Your task to perform on an android device: Go to Amazon Image 0: 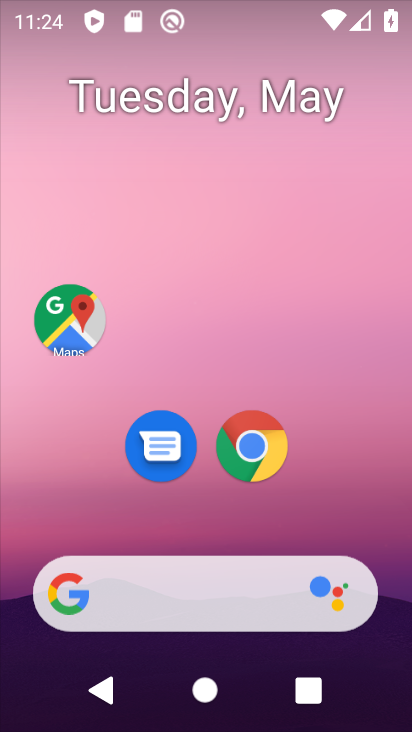
Step 0: click (272, 456)
Your task to perform on an android device: Go to Amazon Image 1: 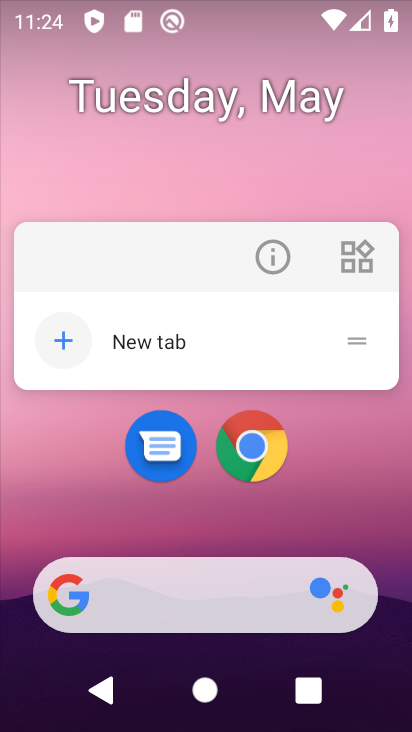
Step 1: click (272, 456)
Your task to perform on an android device: Go to Amazon Image 2: 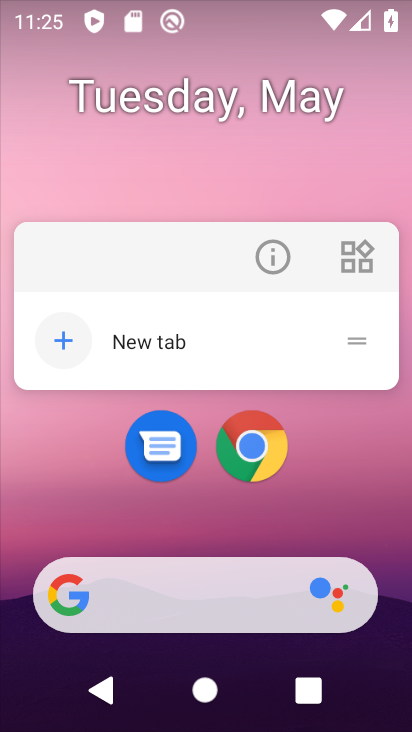
Step 2: click (258, 460)
Your task to perform on an android device: Go to Amazon Image 3: 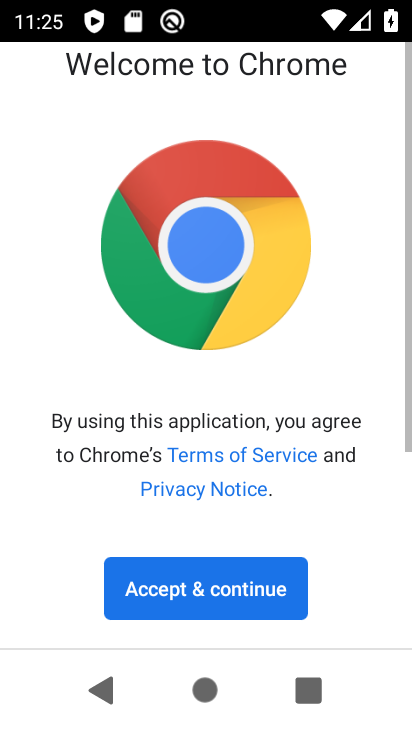
Step 3: click (199, 583)
Your task to perform on an android device: Go to Amazon Image 4: 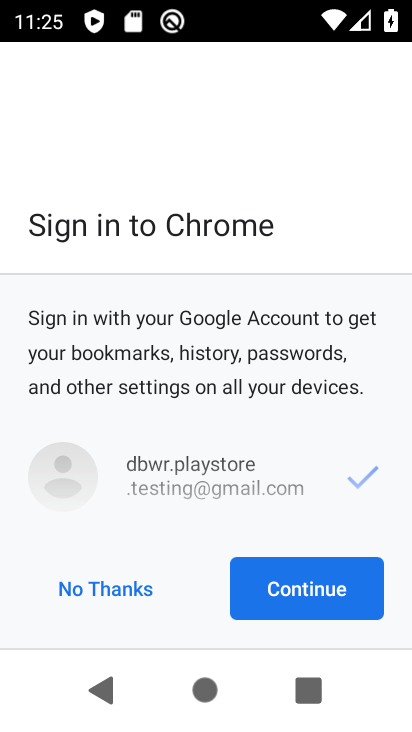
Step 4: click (322, 608)
Your task to perform on an android device: Go to Amazon Image 5: 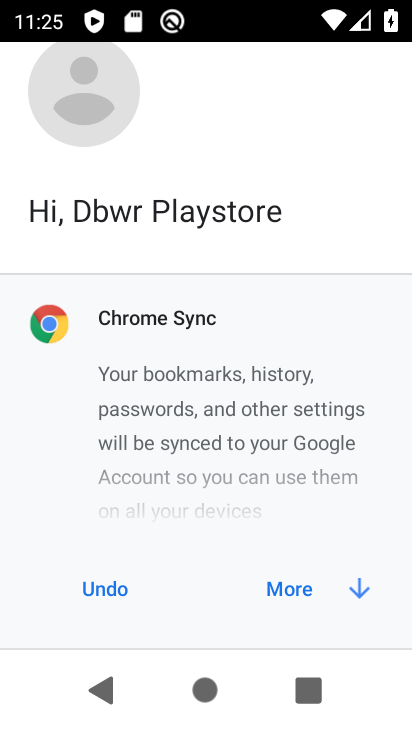
Step 5: click (320, 601)
Your task to perform on an android device: Go to Amazon Image 6: 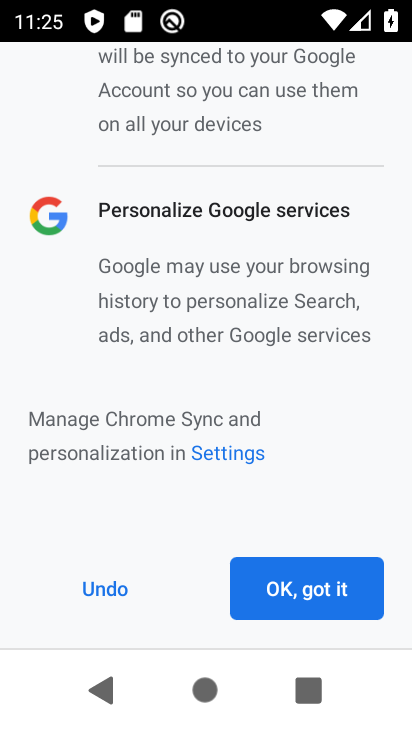
Step 6: click (386, 594)
Your task to perform on an android device: Go to Amazon Image 7: 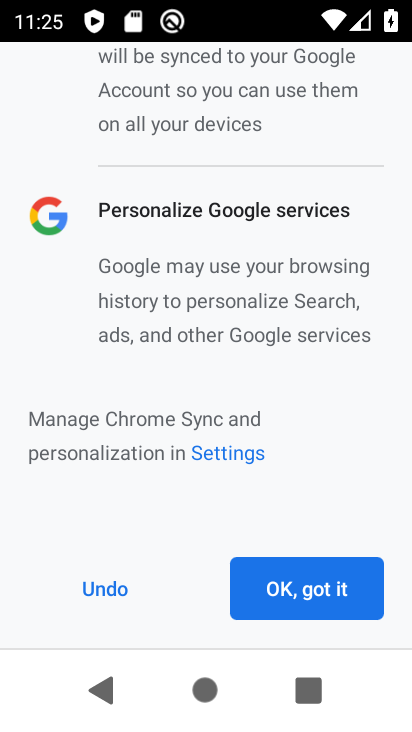
Step 7: click (345, 596)
Your task to perform on an android device: Go to Amazon Image 8: 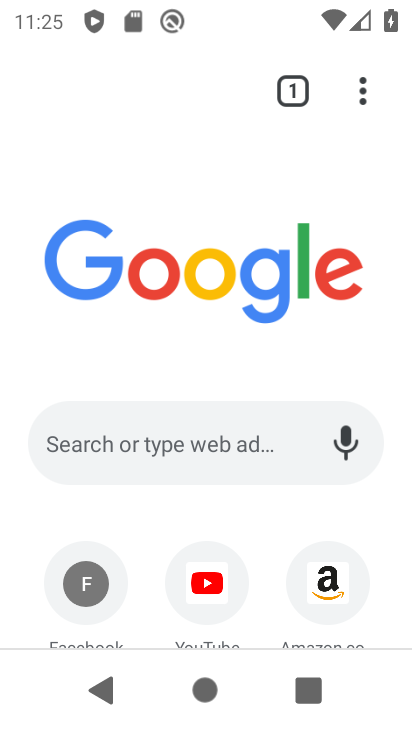
Step 8: click (337, 596)
Your task to perform on an android device: Go to Amazon Image 9: 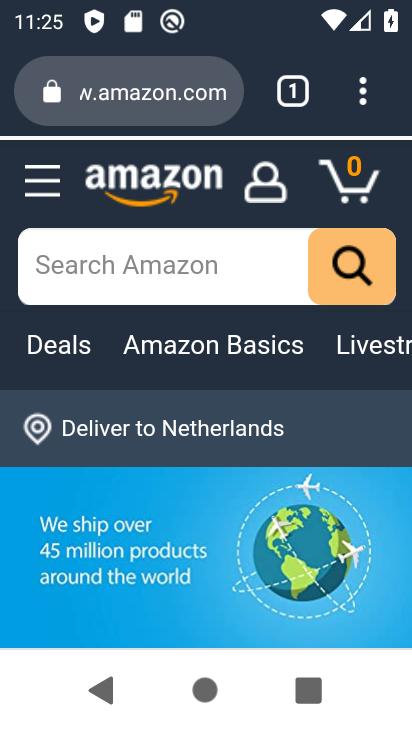
Step 9: task complete